Your task to perform on an android device: empty trash in google photos Image 0: 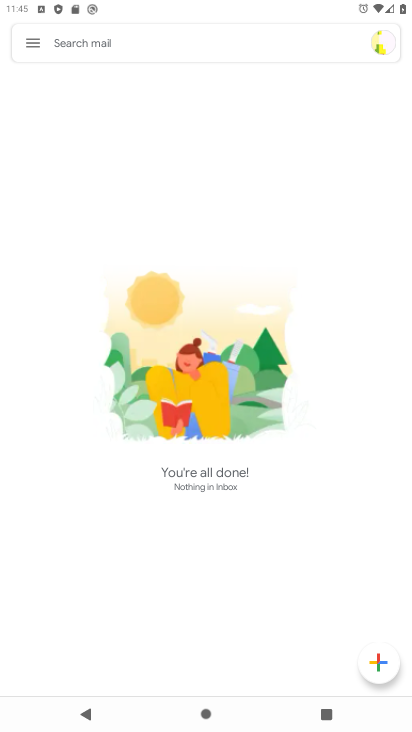
Step 0: click (32, 37)
Your task to perform on an android device: empty trash in google photos Image 1: 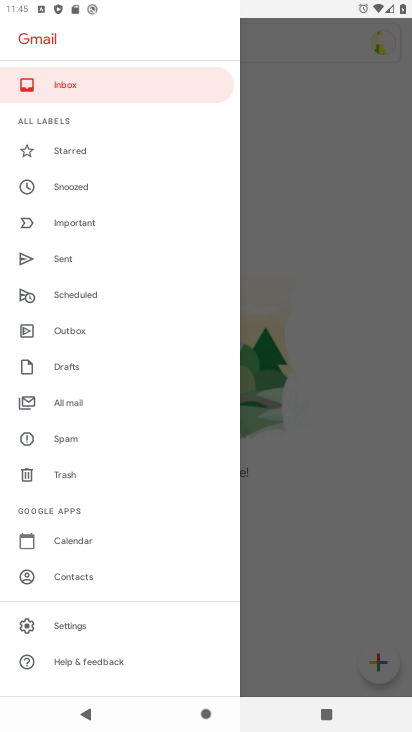
Step 1: click (66, 474)
Your task to perform on an android device: empty trash in google photos Image 2: 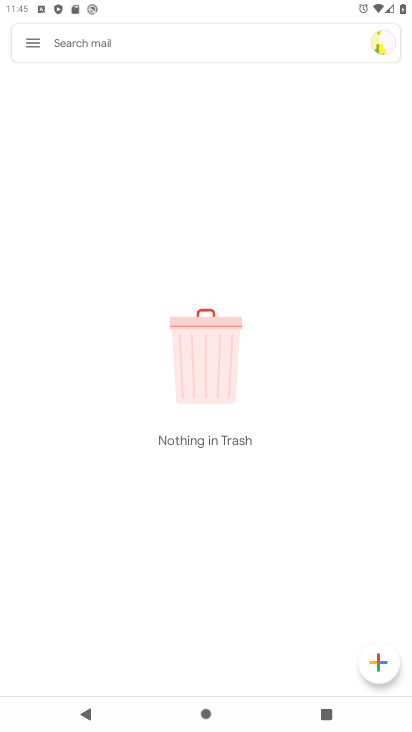
Step 2: task complete